Your task to perform on an android device: manage bookmarks in the chrome app Image 0: 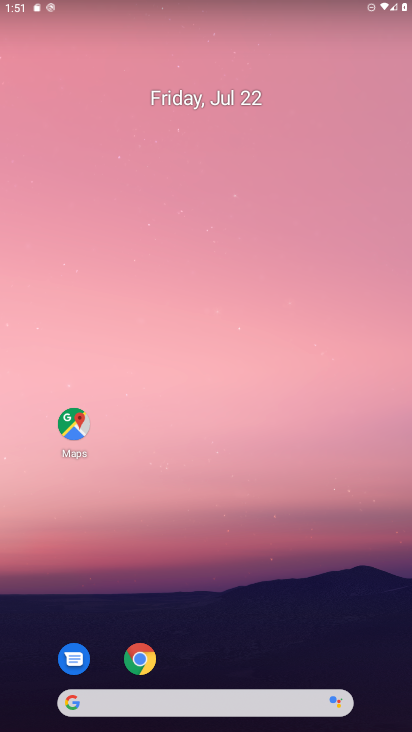
Step 0: click (140, 659)
Your task to perform on an android device: manage bookmarks in the chrome app Image 1: 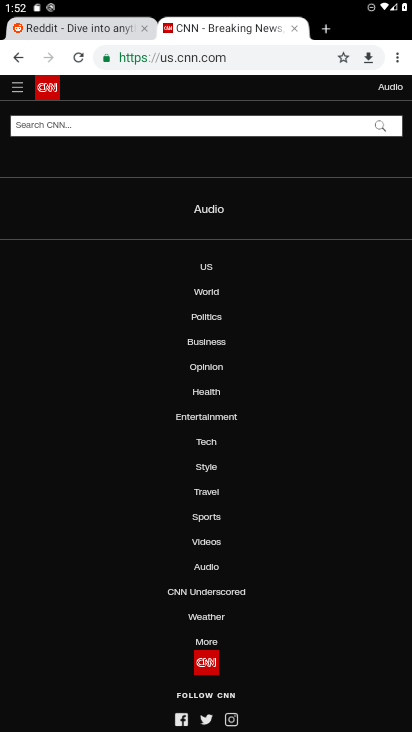
Step 1: click (398, 59)
Your task to perform on an android device: manage bookmarks in the chrome app Image 2: 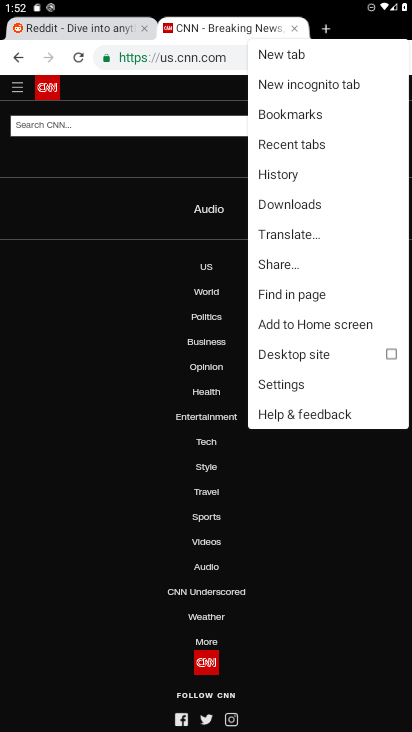
Step 2: click (312, 113)
Your task to perform on an android device: manage bookmarks in the chrome app Image 3: 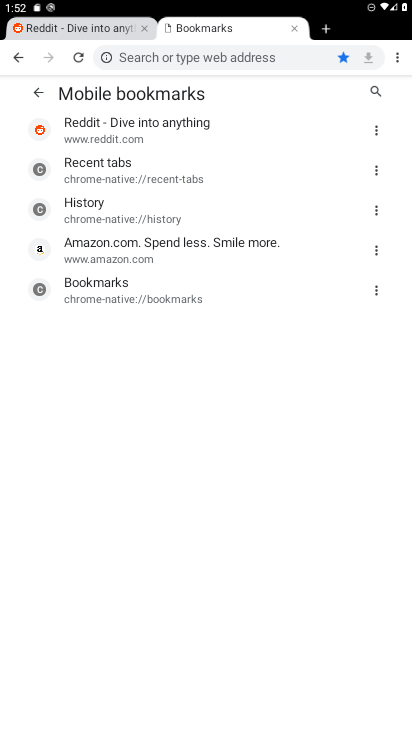
Step 3: click (377, 169)
Your task to perform on an android device: manage bookmarks in the chrome app Image 4: 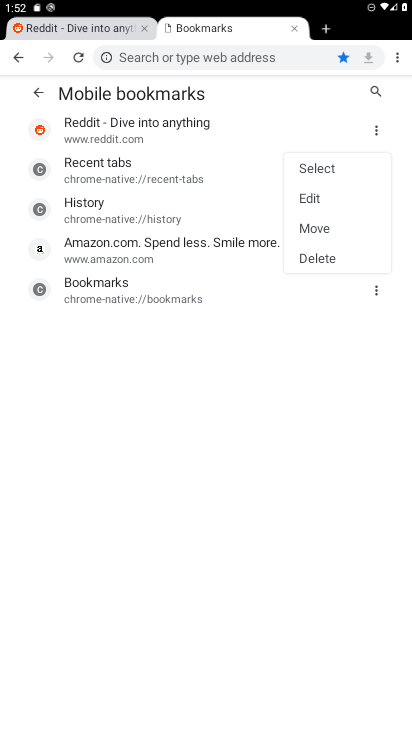
Step 4: click (316, 194)
Your task to perform on an android device: manage bookmarks in the chrome app Image 5: 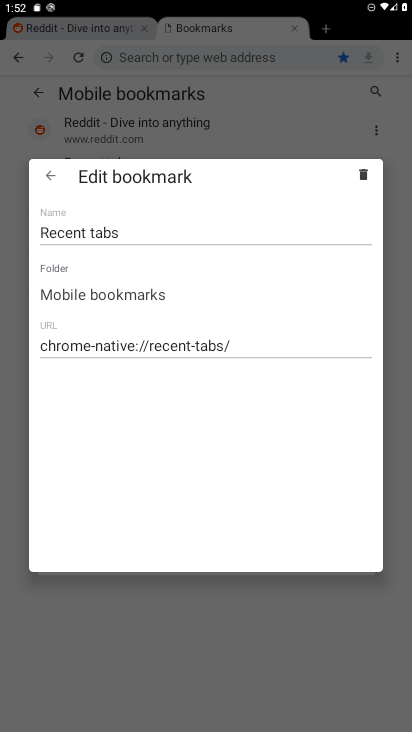
Step 5: click (362, 170)
Your task to perform on an android device: manage bookmarks in the chrome app Image 6: 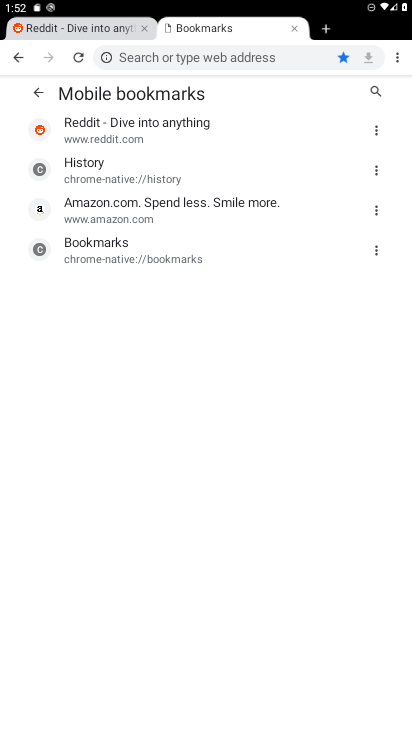
Step 6: task complete